Your task to perform on an android device: Go to Android settings Image 0: 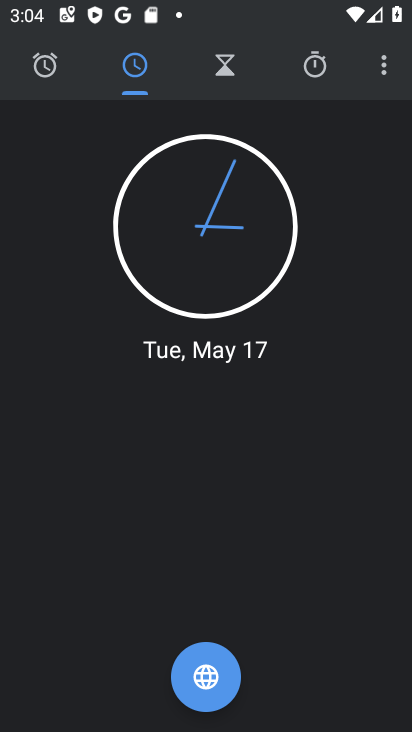
Step 0: press back button
Your task to perform on an android device: Go to Android settings Image 1: 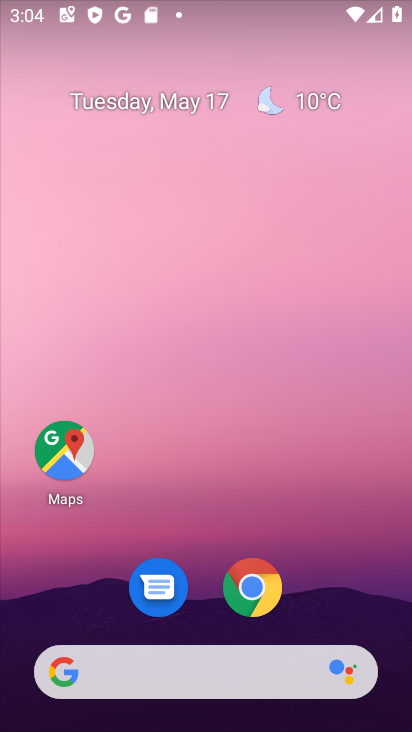
Step 1: drag from (328, 578) to (298, 0)
Your task to perform on an android device: Go to Android settings Image 2: 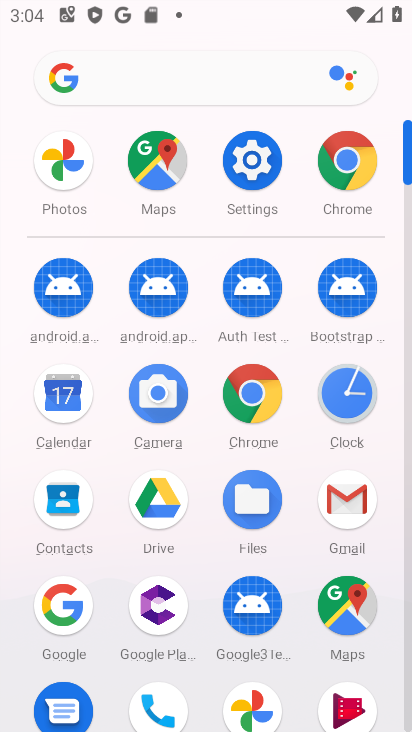
Step 2: click (249, 157)
Your task to perform on an android device: Go to Android settings Image 3: 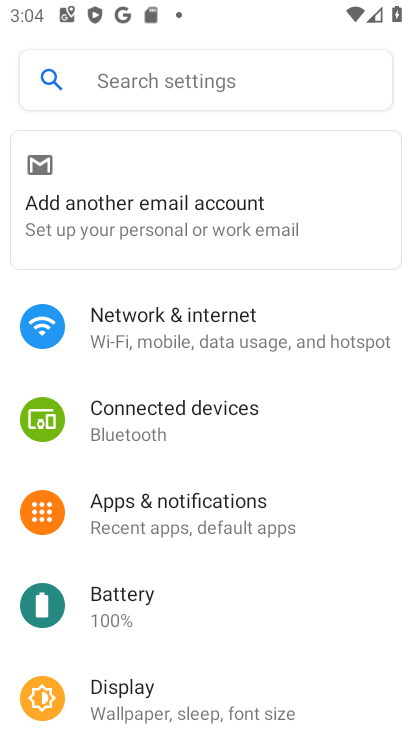
Step 3: task complete